Your task to perform on an android device: read, delete, or share a saved page in the chrome app Image 0: 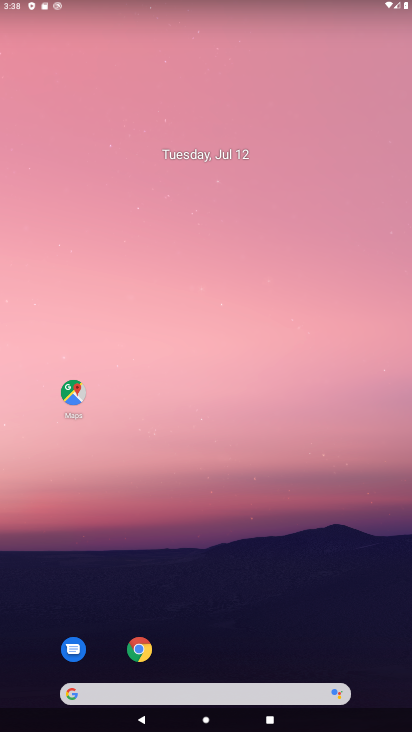
Step 0: press home button
Your task to perform on an android device: read, delete, or share a saved page in the chrome app Image 1: 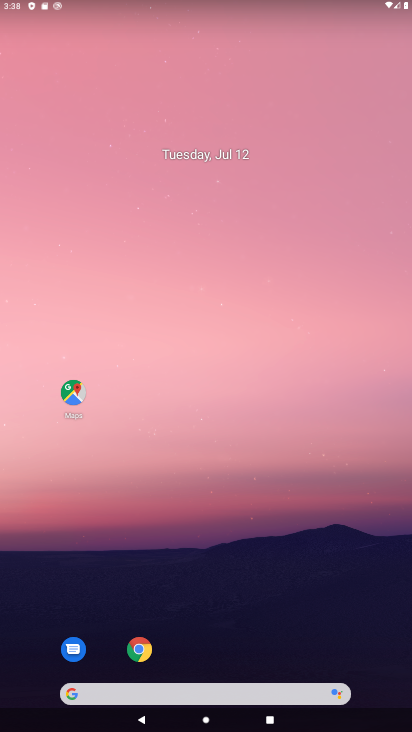
Step 1: click (141, 647)
Your task to perform on an android device: read, delete, or share a saved page in the chrome app Image 2: 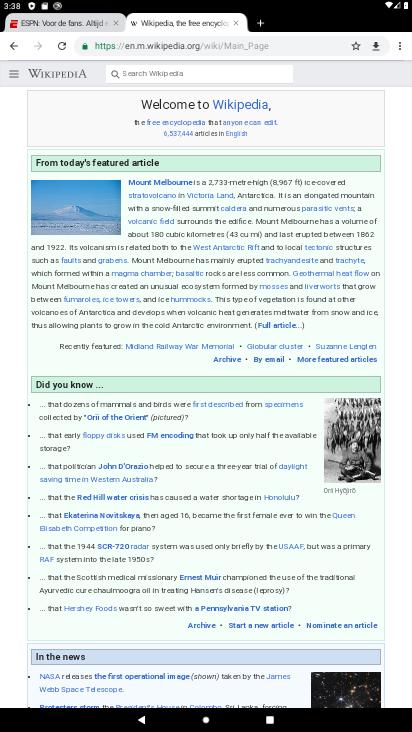
Step 2: click (236, 17)
Your task to perform on an android device: read, delete, or share a saved page in the chrome app Image 3: 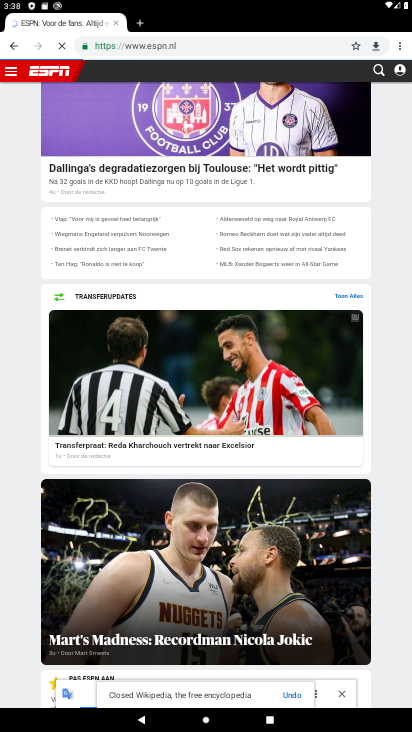
Step 3: click (146, 26)
Your task to perform on an android device: read, delete, or share a saved page in the chrome app Image 4: 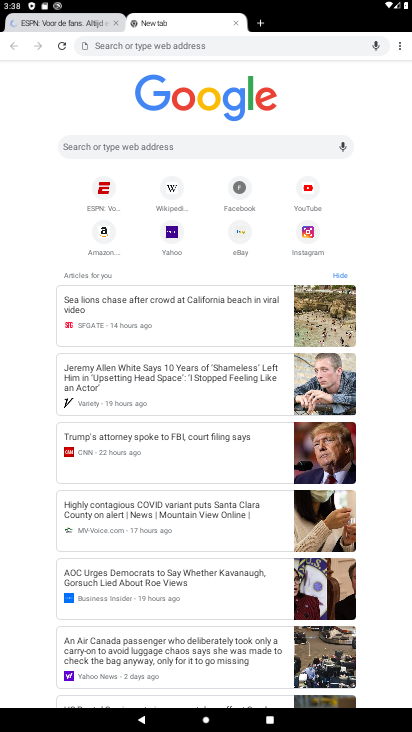
Step 4: click (118, 21)
Your task to perform on an android device: read, delete, or share a saved page in the chrome app Image 5: 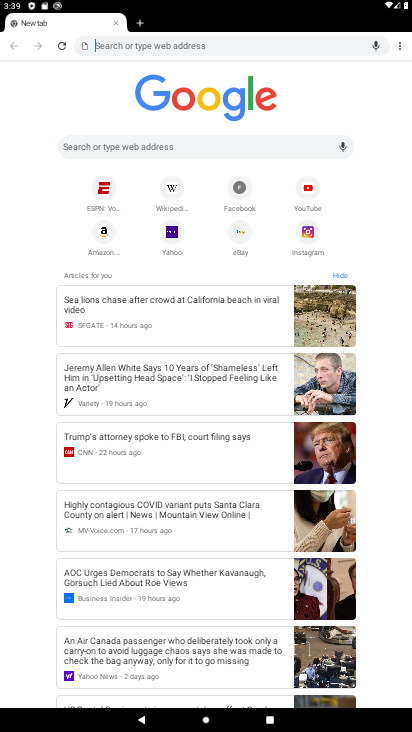
Step 5: click (399, 45)
Your task to perform on an android device: read, delete, or share a saved page in the chrome app Image 6: 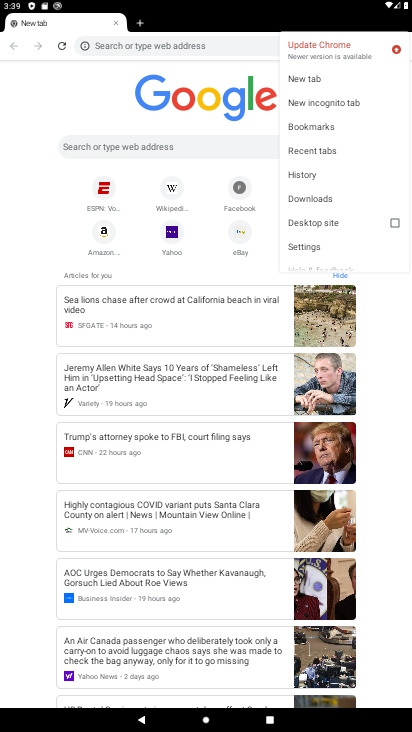
Step 6: click (341, 195)
Your task to perform on an android device: read, delete, or share a saved page in the chrome app Image 7: 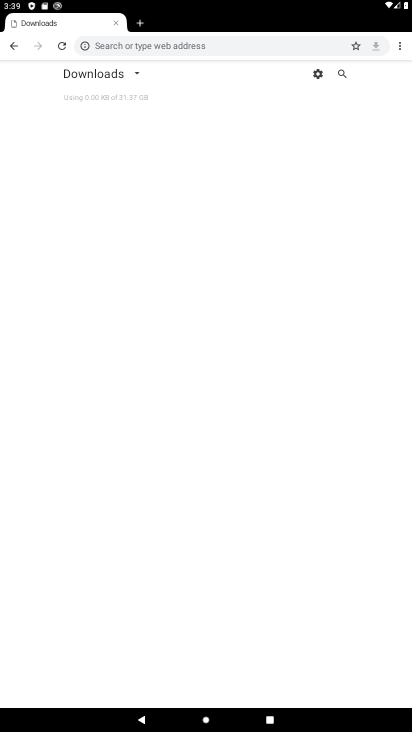
Step 7: task complete